Your task to perform on an android device: turn on translation in the chrome app Image 0: 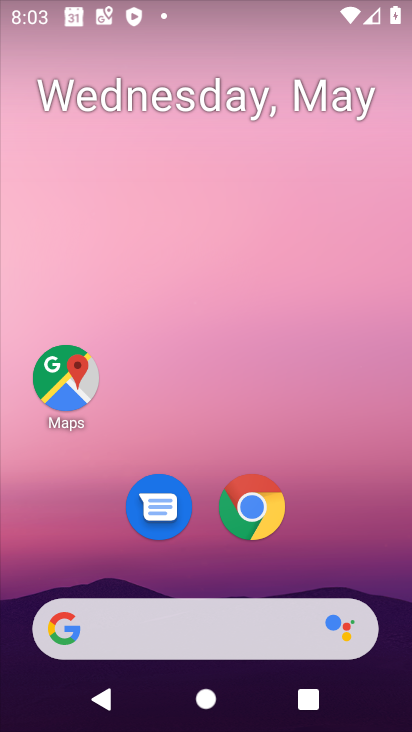
Step 0: click (265, 495)
Your task to perform on an android device: turn on translation in the chrome app Image 1: 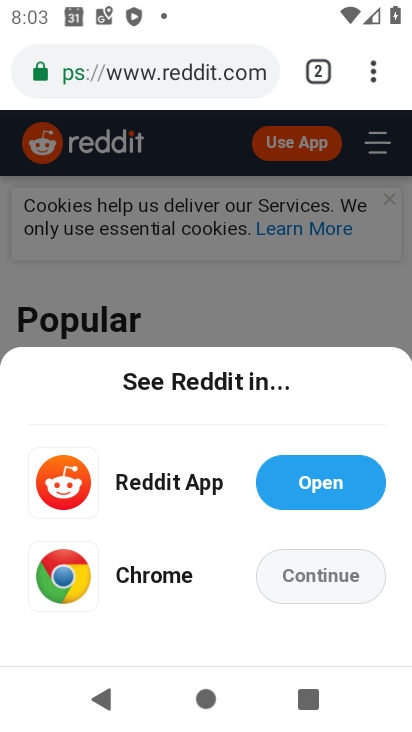
Step 1: click (373, 64)
Your task to perform on an android device: turn on translation in the chrome app Image 2: 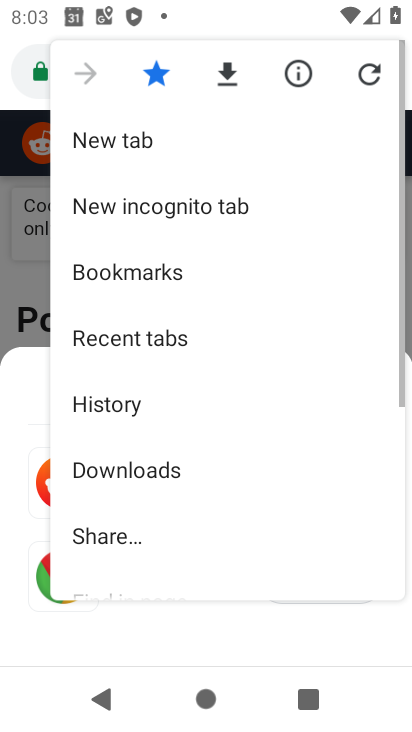
Step 2: drag from (170, 503) to (207, 232)
Your task to perform on an android device: turn on translation in the chrome app Image 3: 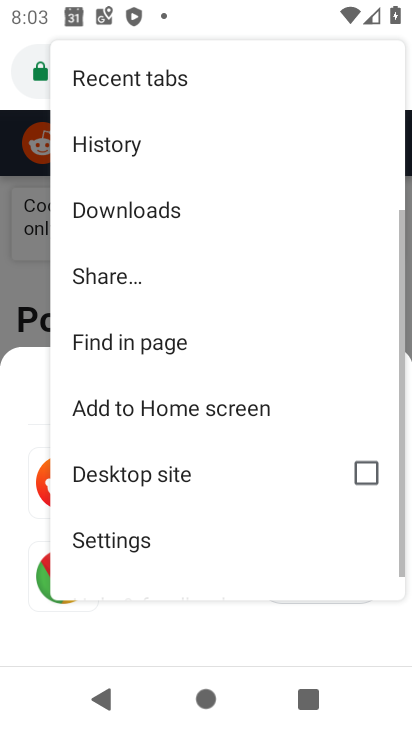
Step 3: click (142, 546)
Your task to perform on an android device: turn on translation in the chrome app Image 4: 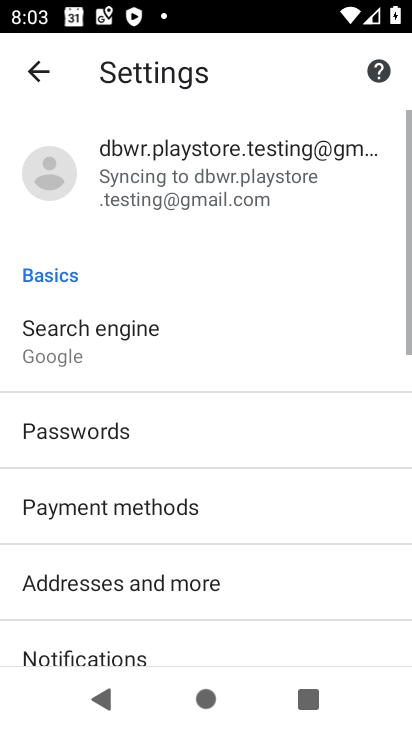
Step 4: drag from (187, 547) to (204, 250)
Your task to perform on an android device: turn on translation in the chrome app Image 5: 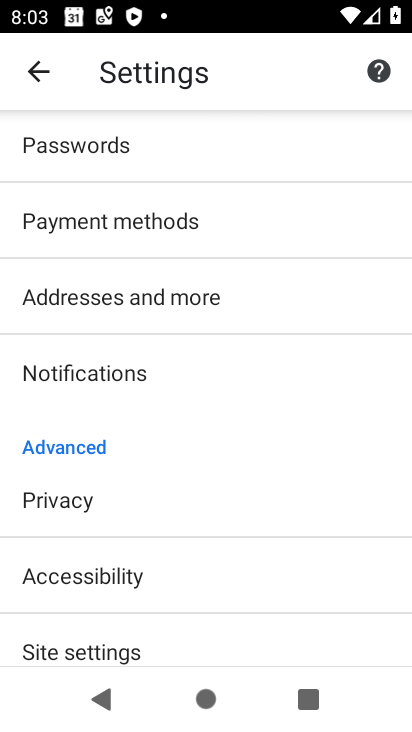
Step 5: drag from (212, 565) to (193, 295)
Your task to perform on an android device: turn on translation in the chrome app Image 6: 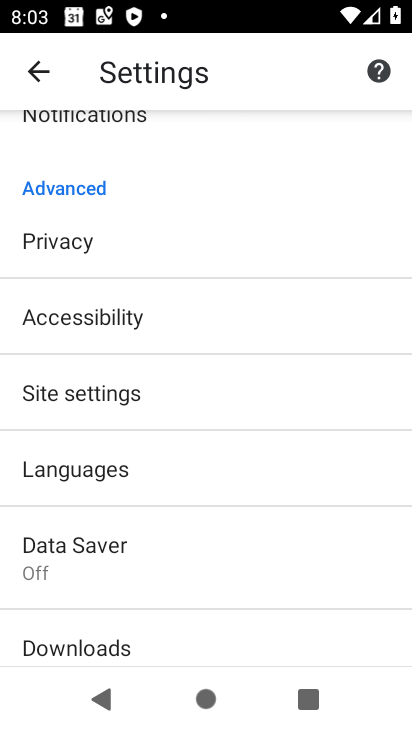
Step 6: click (135, 471)
Your task to perform on an android device: turn on translation in the chrome app Image 7: 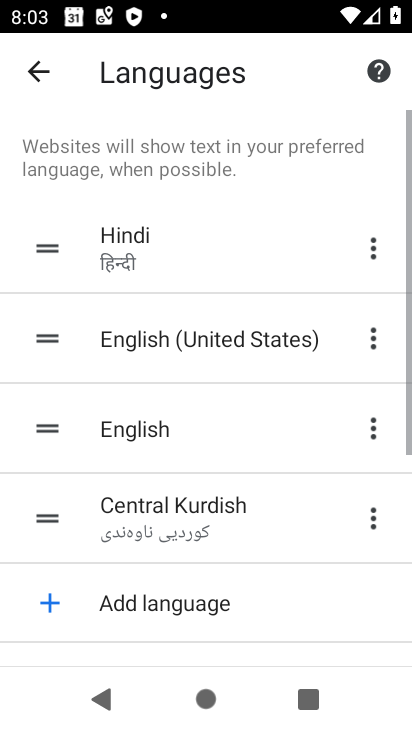
Step 7: task complete